Your task to perform on an android device: Go to CNN.com Image 0: 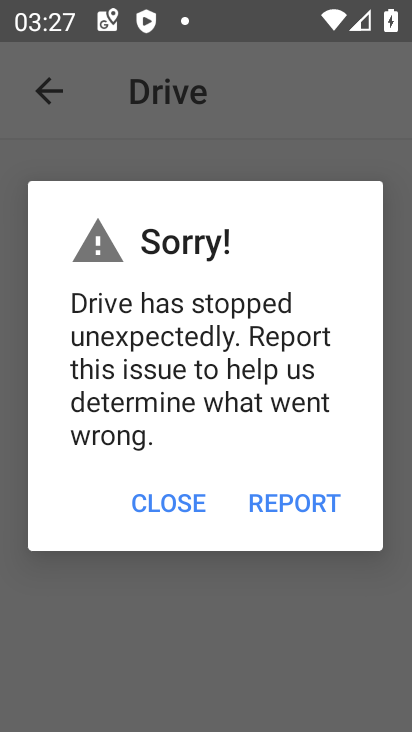
Step 0: press home button
Your task to perform on an android device: Go to CNN.com Image 1: 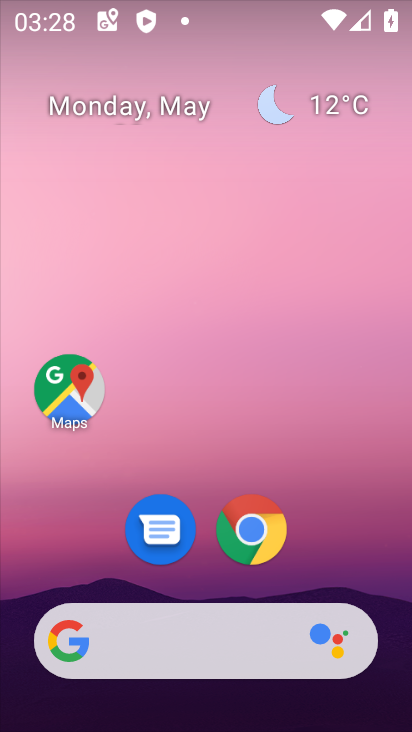
Step 1: click (252, 527)
Your task to perform on an android device: Go to CNN.com Image 2: 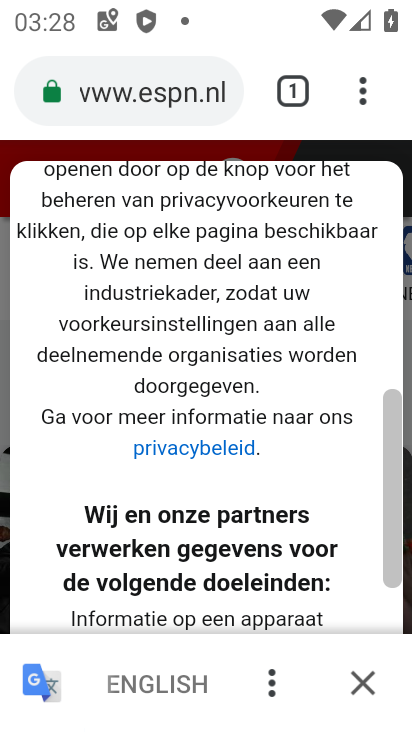
Step 2: click (196, 84)
Your task to perform on an android device: Go to CNN.com Image 3: 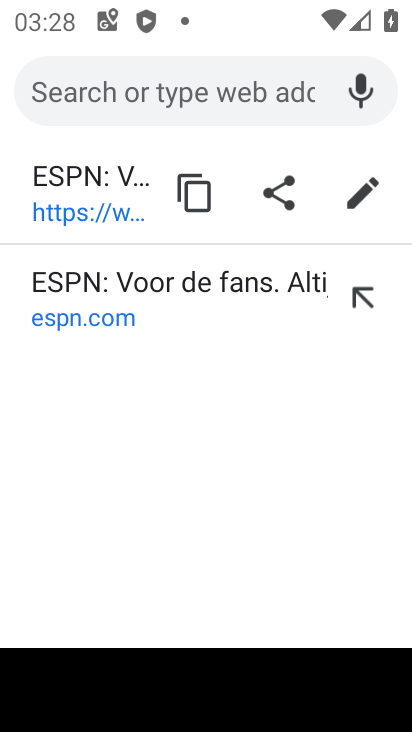
Step 3: type "cnn.com"
Your task to perform on an android device: Go to CNN.com Image 4: 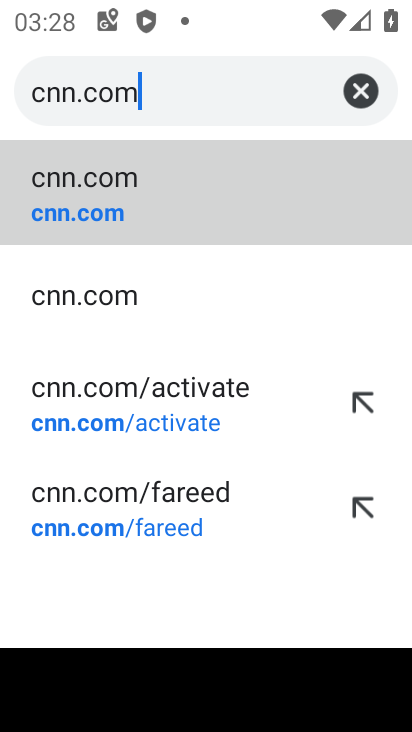
Step 4: click (106, 210)
Your task to perform on an android device: Go to CNN.com Image 5: 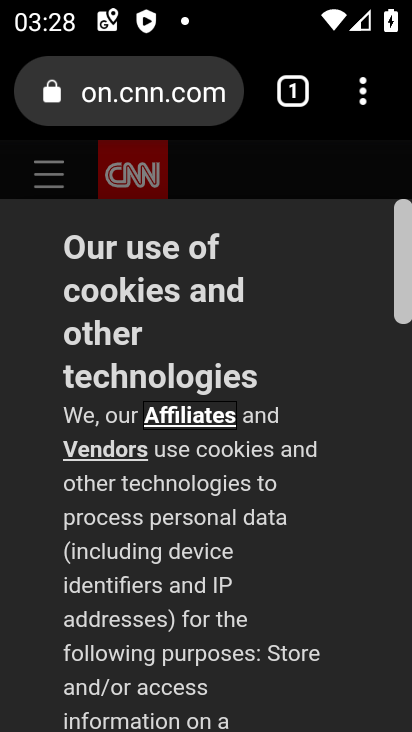
Step 5: task complete